Your task to perform on an android device: allow notifications from all sites in the chrome app Image 0: 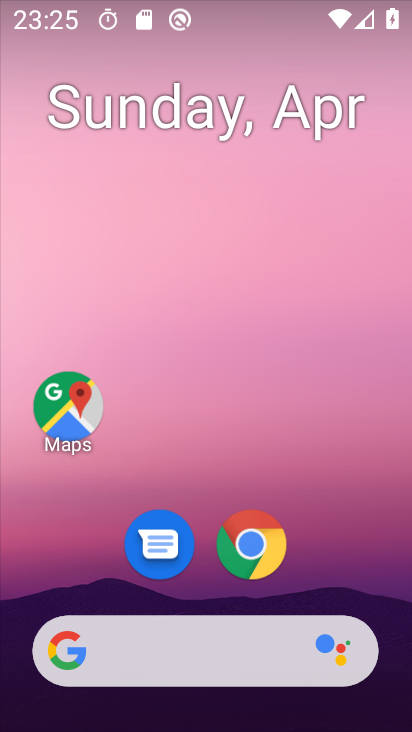
Step 0: drag from (312, 417) to (306, 368)
Your task to perform on an android device: allow notifications from all sites in the chrome app Image 1: 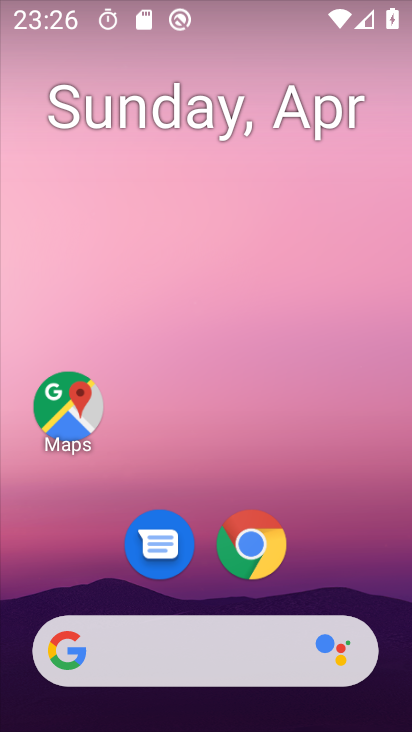
Step 1: drag from (361, 500) to (351, 224)
Your task to perform on an android device: allow notifications from all sites in the chrome app Image 2: 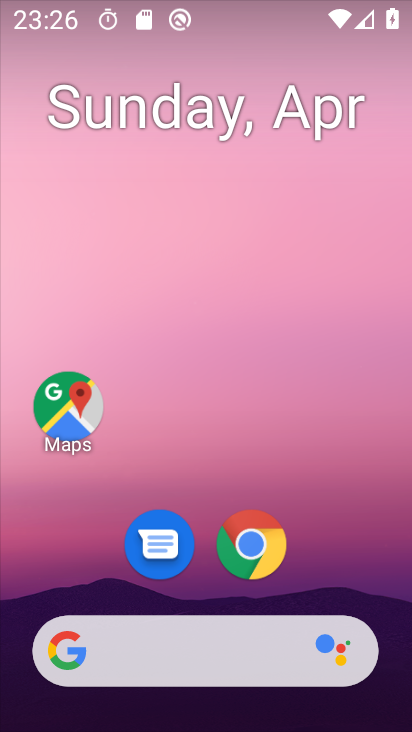
Step 2: drag from (322, 611) to (331, 153)
Your task to perform on an android device: allow notifications from all sites in the chrome app Image 3: 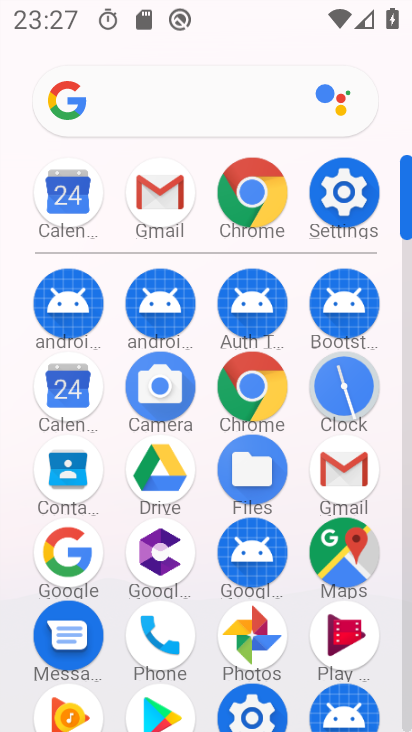
Step 3: click (238, 393)
Your task to perform on an android device: allow notifications from all sites in the chrome app Image 4: 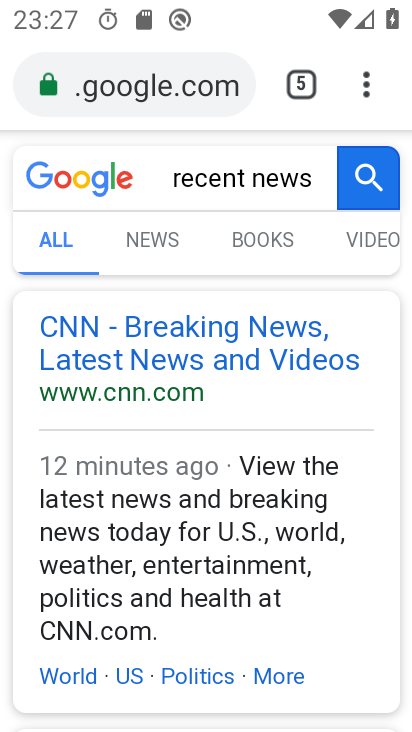
Step 4: click (357, 84)
Your task to perform on an android device: allow notifications from all sites in the chrome app Image 5: 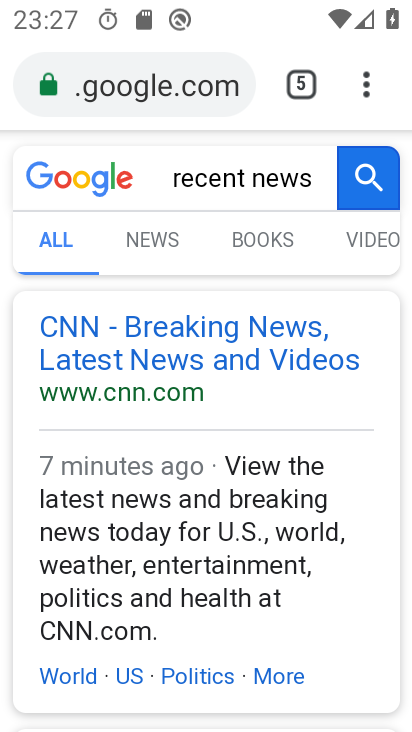
Step 5: click (353, 78)
Your task to perform on an android device: allow notifications from all sites in the chrome app Image 6: 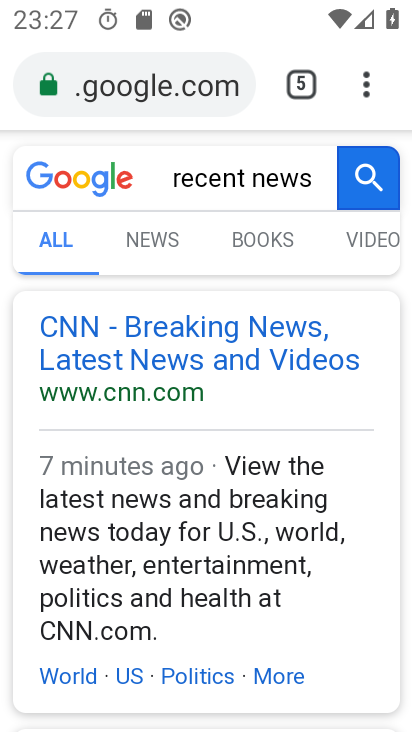
Step 6: click (359, 84)
Your task to perform on an android device: allow notifications from all sites in the chrome app Image 7: 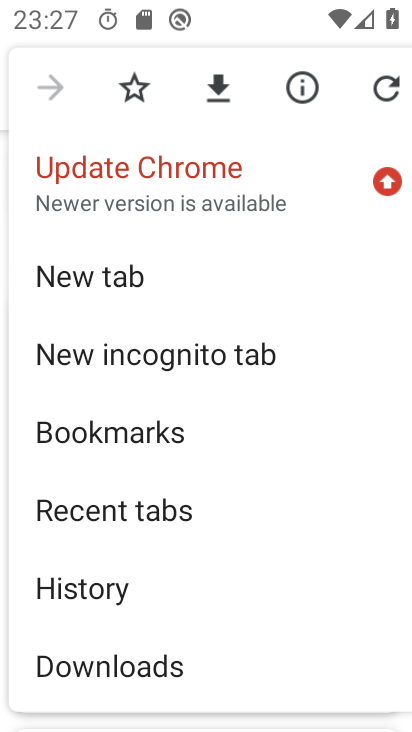
Step 7: drag from (167, 646) to (255, 211)
Your task to perform on an android device: allow notifications from all sites in the chrome app Image 8: 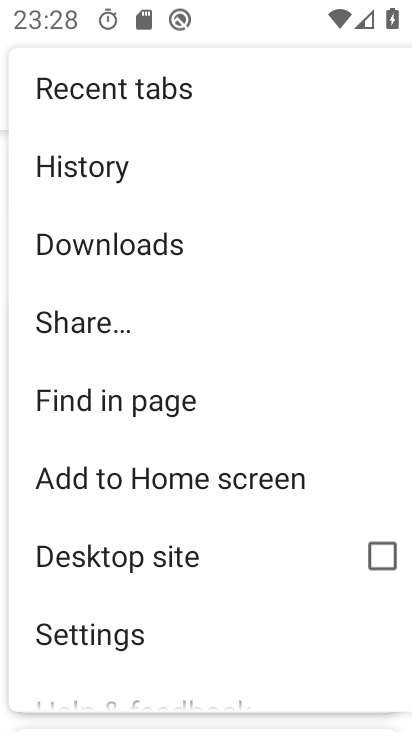
Step 8: click (114, 643)
Your task to perform on an android device: allow notifications from all sites in the chrome app Image 9: 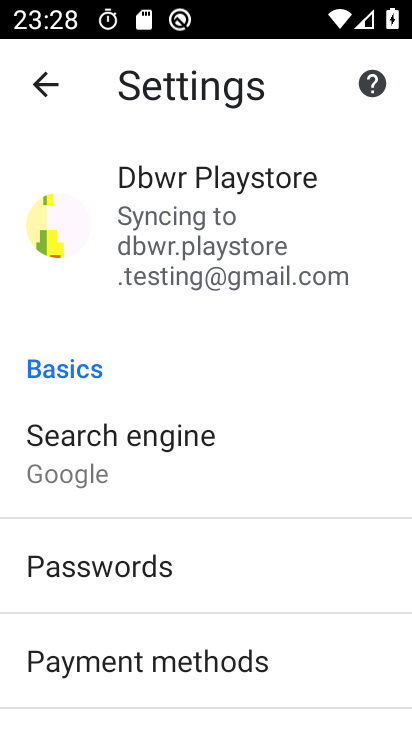
Step 9: drag from (283, 653) to (332, 349)
Your task to perform on an android device: allow notifications from all sites in the chrome app Image 10: 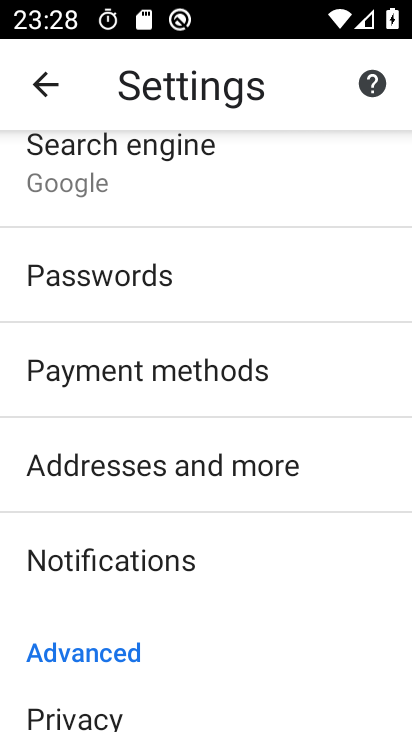
Step 10: click (164, 554)
Your task to perform on an android device: allow notifications from all sites in the chrome app Image 11: 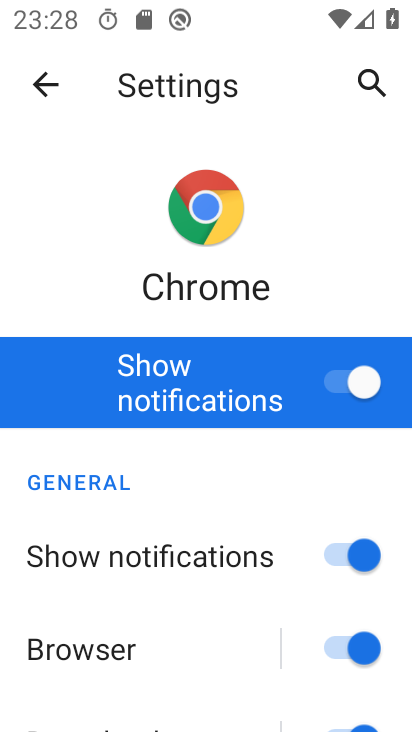
Step 11: click (38, 74)
Your task to perform on an android device: allow notifications from all sites in the chrome app Image 12: 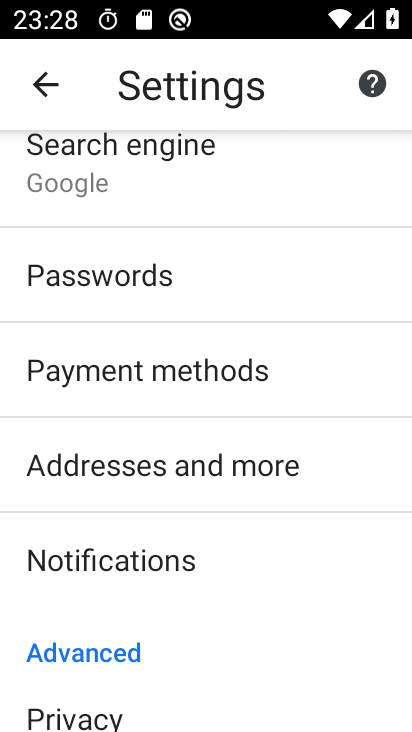
Step 12: drag from (169, 686) to (230, 309)
Your task to perform on an android device: allow notifications from all sites in the chrome app Image 13: 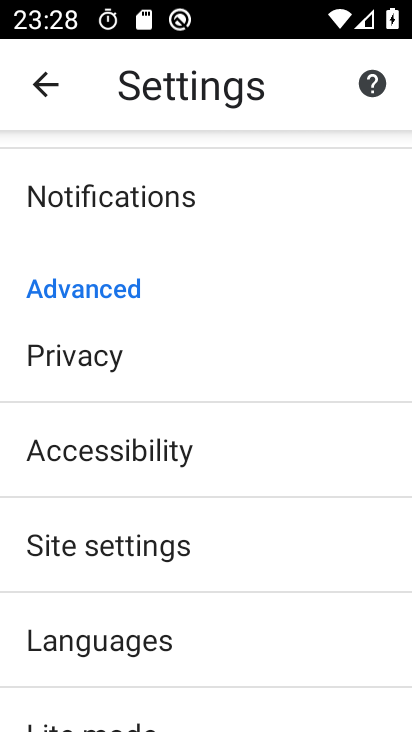
Step 13: click (186, 547)
Your task to perform on an android device: allow notifications from all sites in the chrome app Image 14: 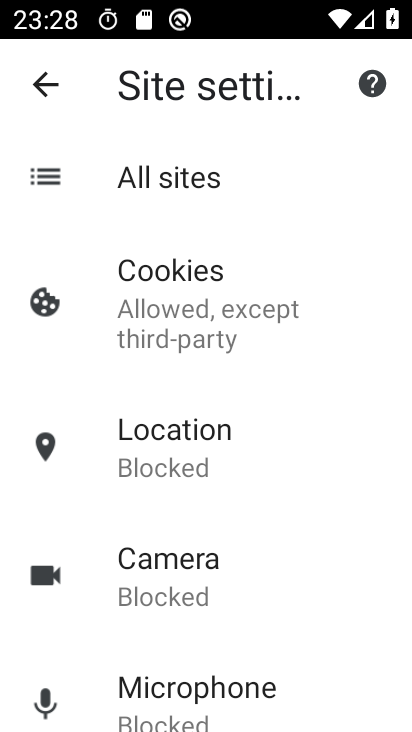
Step 14: drag from (288, 608) to (331, 218)
Your task to perform on an android device: allow notifications from all sites in the chrome app Image 15: 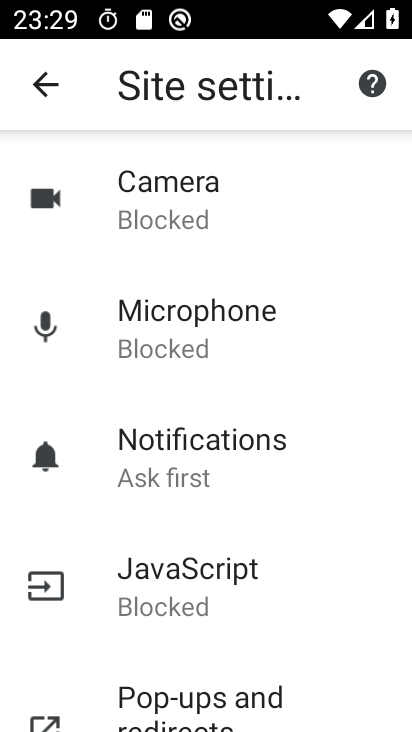
Step 15: drag from (227, 604) to (247, 462)
Your task to perform on an android device: allow notifications from all sites in the chrome app Image 16: 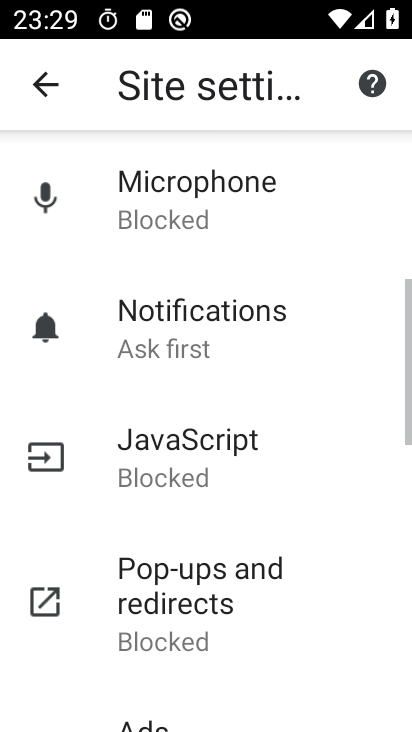
Step 16: click (238, 319)
Your task to perform on an android device: allow notifications from all sites in the chrome app Image 17: 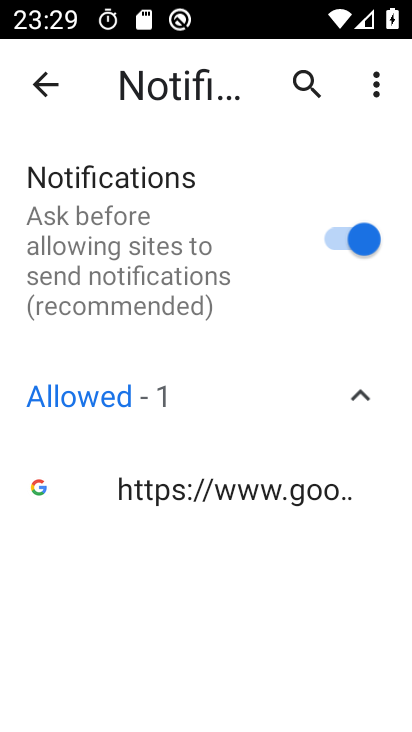
Step 17: click (35, 77)
Your task to perform on an android device: allow notifications from all sites in the chrome app Image 18: 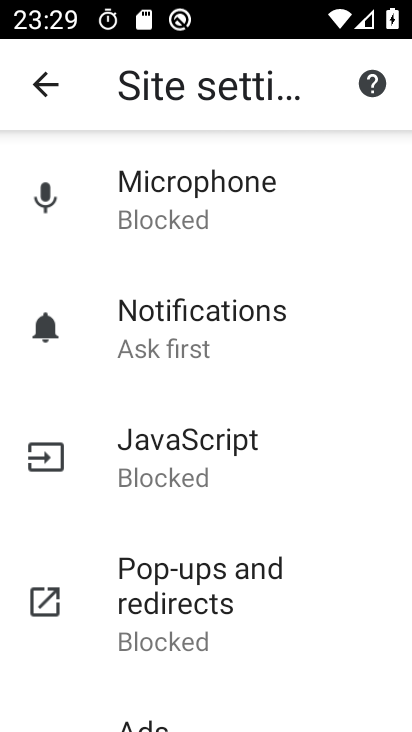
Step 18: click (170, 217)
Your task to perform on an android device: allow notifications from all sites in the chrome app Image 19: 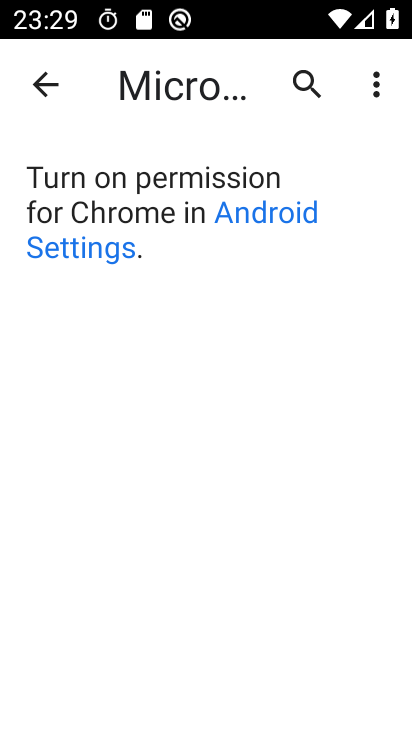
Step 19: click (37, 78)
Your task to perform on an android device: allow notifications from all sites in the chrome app Image 20: 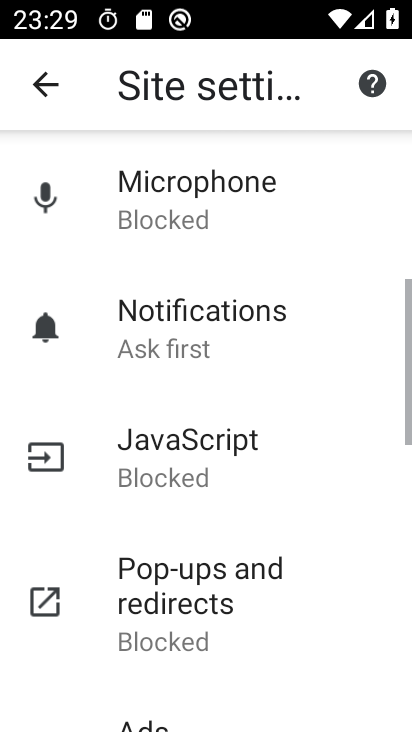
Step 20: click (182, 332)
Your task to perform on an android device: allow notifications from all sites in the chrome app Image 21: 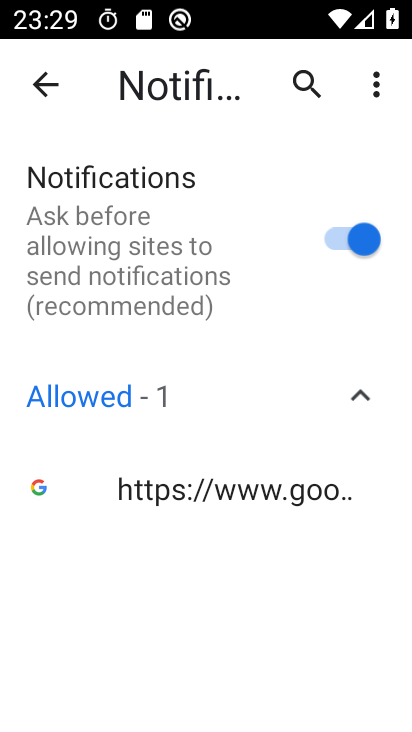
Step 21: click (48, 77)
Your task to perform on an android device: allow notifications from all sites in the chrome app Image 22: 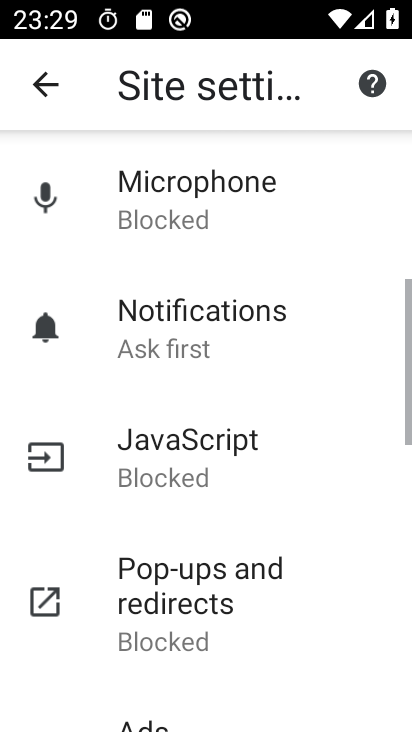
Step 22: task complete